Your task to perform on an android device: Open location settings Image 0: 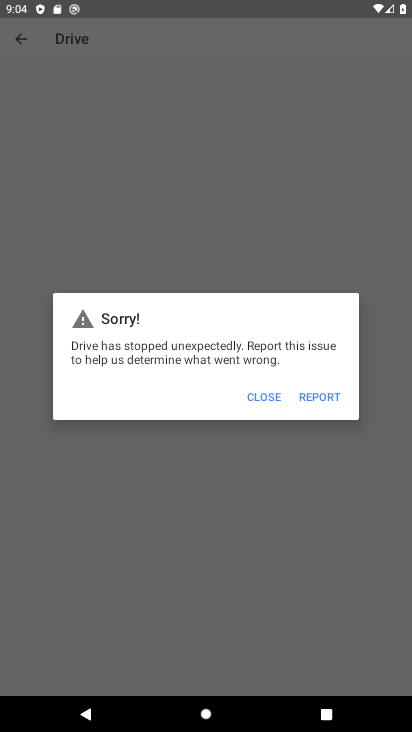
Step 0: press home button
Your task to perform on an android device: Open location settings Image 1: 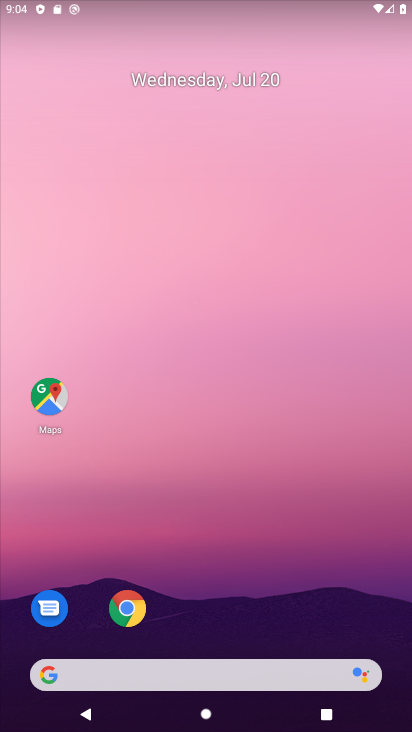
Step 1: drag from (266, 614) to (275, 241)
Your task to perform on an android device: Open location settings Image 2: 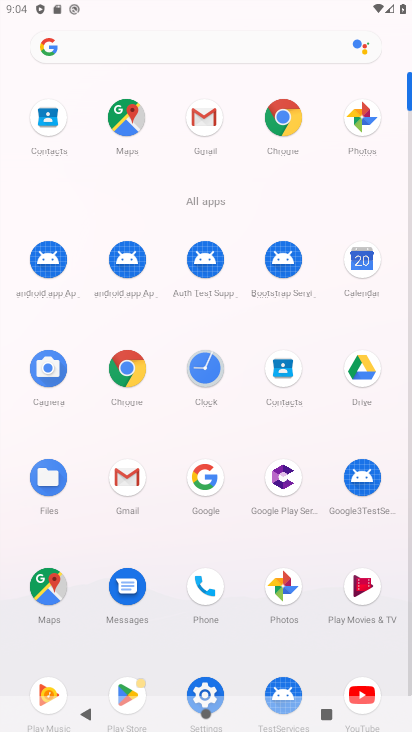
Step 2: click (200, 685)
Your task to perform on an android device: Open location settings Image 3: 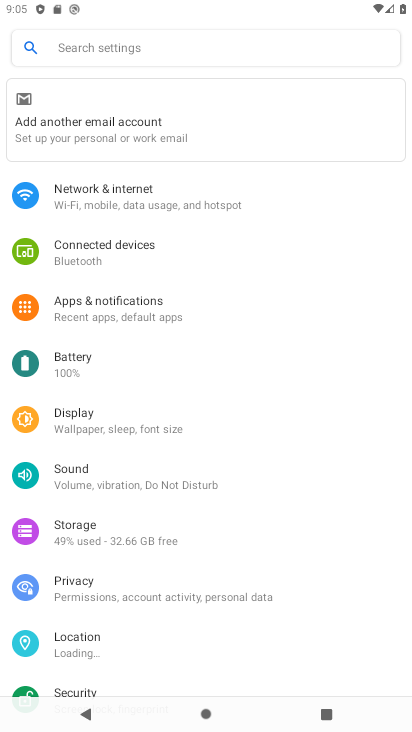
Step 3: click (224, 648)
Your task to perform on an android device: Open location settings Image 4: 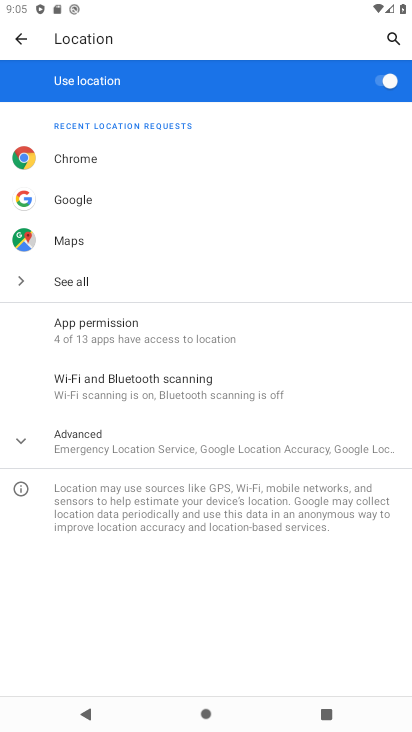
Step 4: task complete